Your task to perform on an android device: toggle notifications settings in the gmail app Image 0: 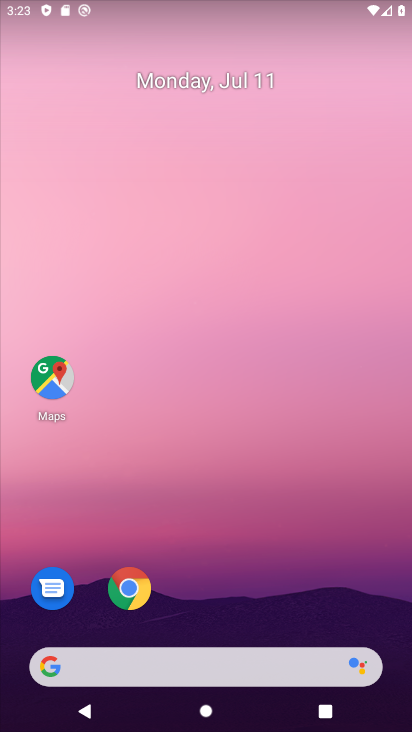
Step 0: press home button
Your task to perform on an android device: toggle notifications settings in the gmail app Image 1: 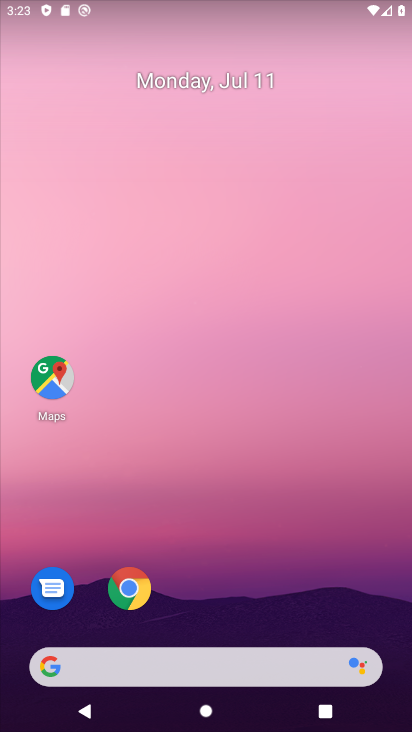
Step 1: drag from (274, 617) to (335, 13)
Your task to perform on an android device: toggle notifications settings in the gmail app Image 2: 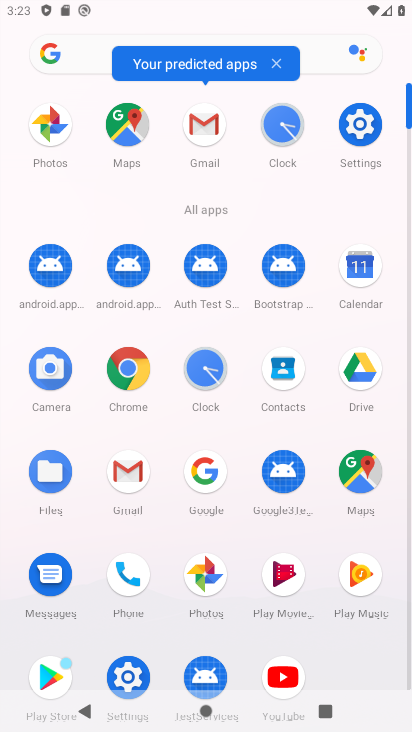
Step 2: click (199, 127)
Your task to perform on an android device: toggle notifications settings in the gmail app Image 3: 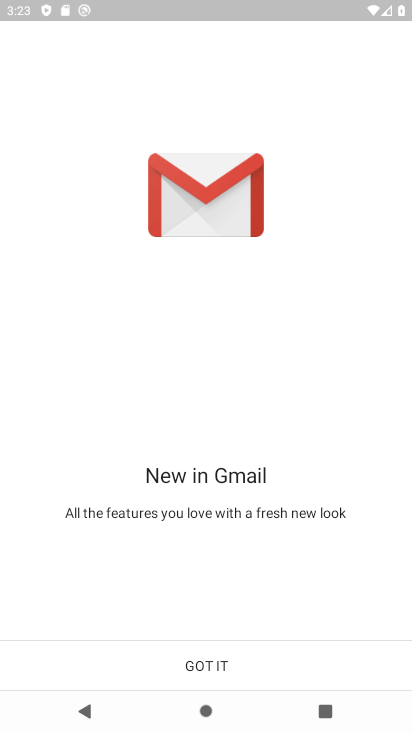
Step 3: click (186, 670)
Your task to perform on an android device: toggle notifications settings in the gmail app Image 4: 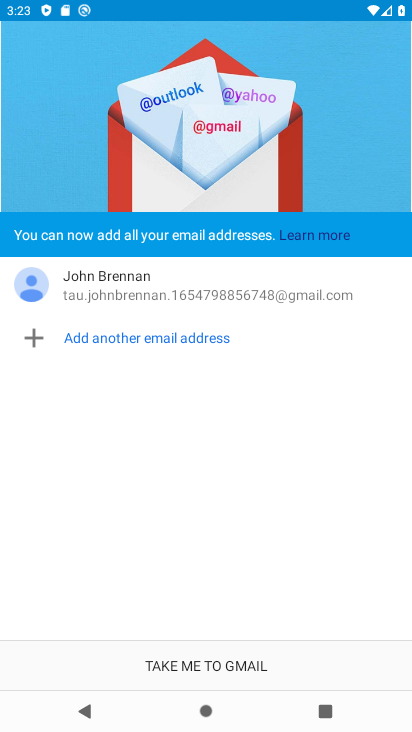
Step 4: click (189, 658)
Your task to perform on an android device: toggle notifications settings in the gmail app Image 5: 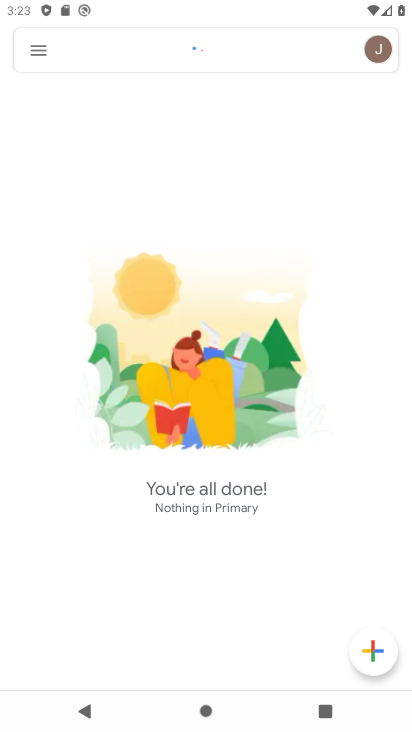
Step 5: click (34, 50)
Your task to perform on an android device: toggle notifications settings in the gmail app Image 6: 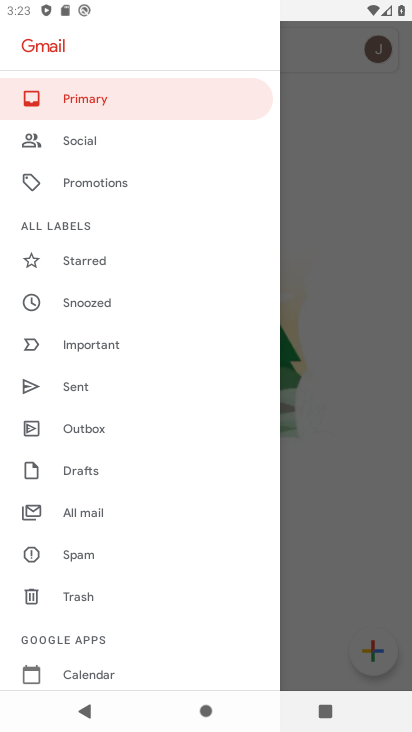
Step 6: drag from (125, 619) to (240, 246)
Your task to perform on an android device: toggle notifications settings in the gmail app Image 7: 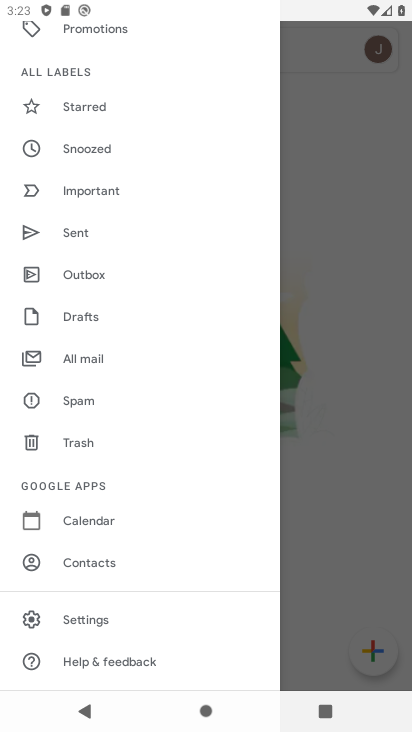
Step 7: click (91, 612)
Your task to perform on an android device: toggle notifications settings in the gmail app Image 8: 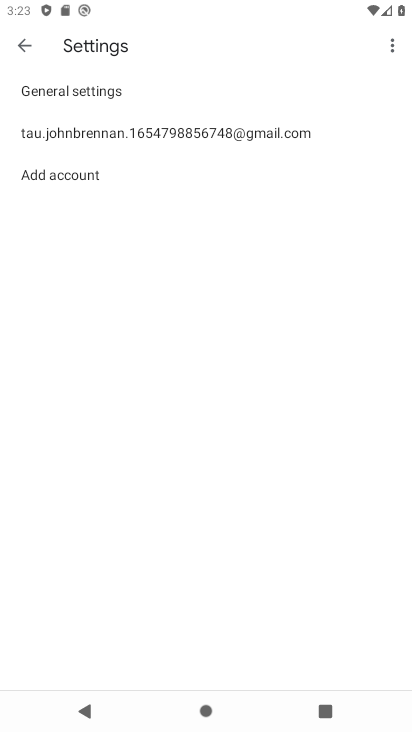
Step 8: click (111, 130)
Your task to perform on an android device: toggle notifications settings in the gmail app Image 9: 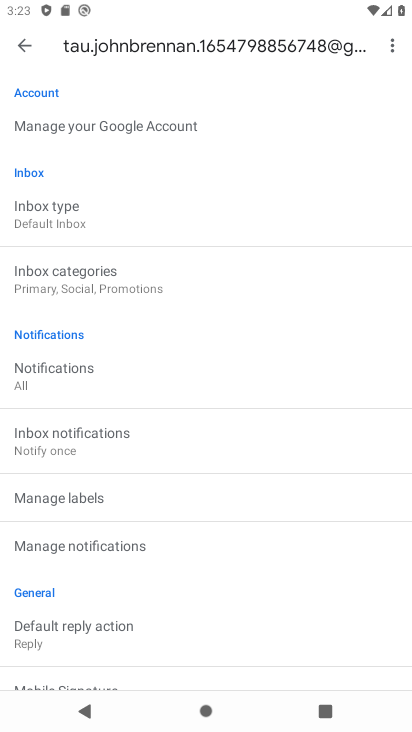
Step 9: click (68, 550)
Your task to perform on an android device: toggle notifications settings in the gmail app Image 10: 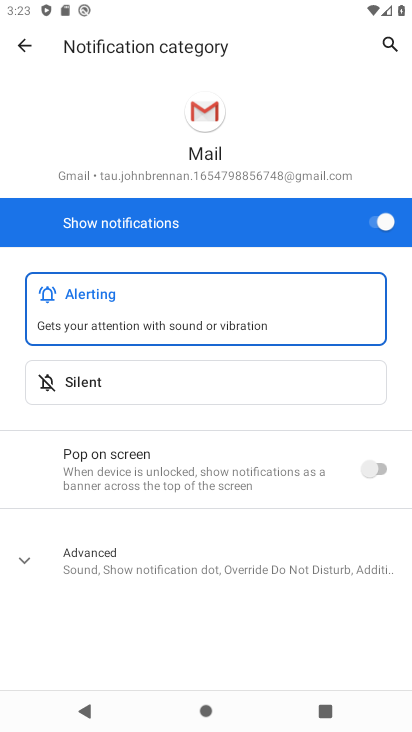
Step 10: click (375, 220)
Your task to perform on an android device: toggle notifications settings in the gmail app Image 11: 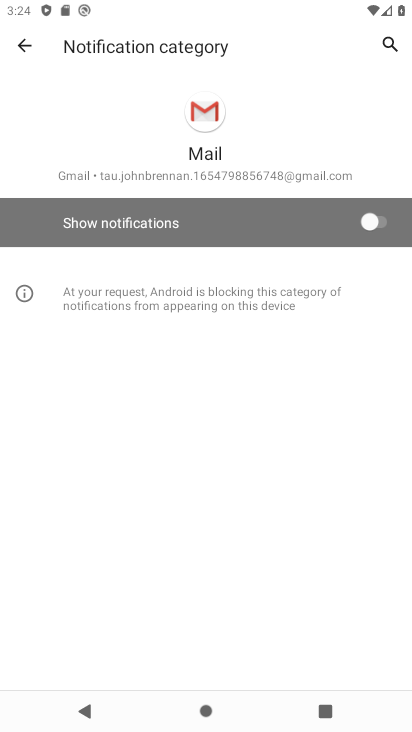
Step 11: task complete